Your task to perform on an android device: delete browsing data in the chrome app Image 0: 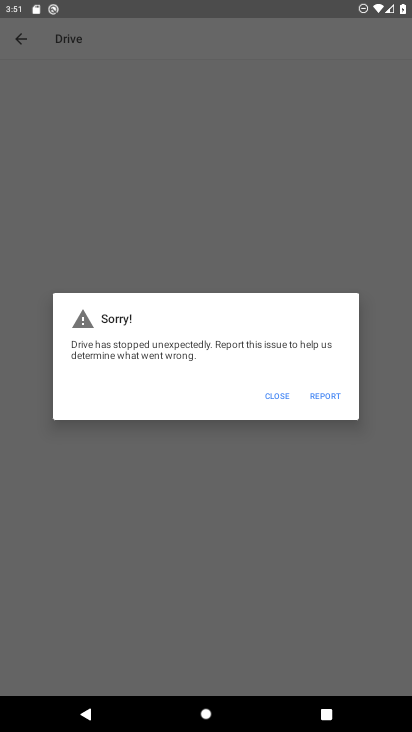
Step 0: press home button
Your task to perform on an android device: delete browsing data in the chrome app Image 1: 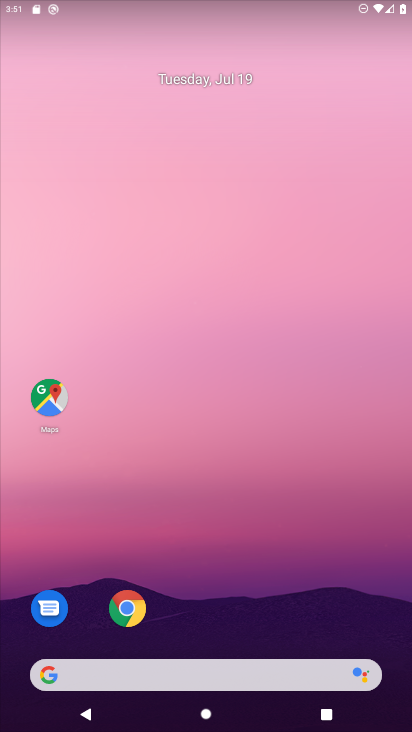
Step 1: drag from (238, 613) to (170, 138)
Your task to perform on an android device: delete browsing data in the chrome app Image 2: 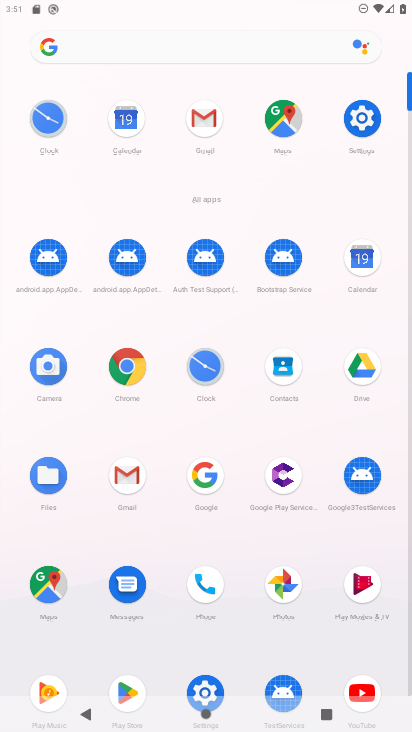
Step 2: click (128, 359)
Your task to perform on an android device: delete browsing data in the chrome app Image 3: 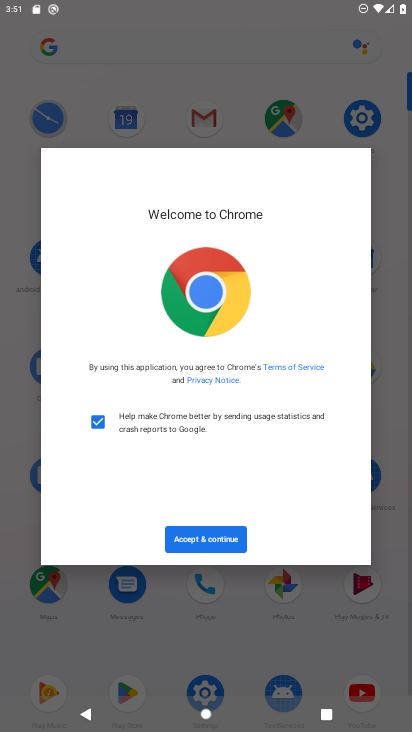
Step 3: click (185, 535)
Your task to perform on an android device: delete browsing data in the chrome app Image 4: 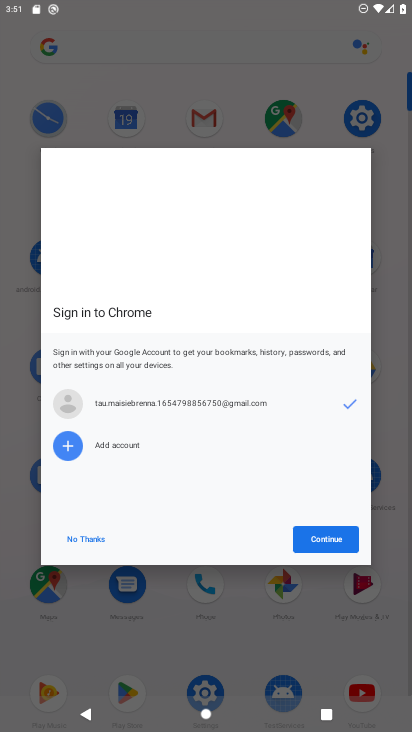
Step 4: click (340, 537)
Your task to perform on an android device: delete browsing data in the chrome app Image 5: 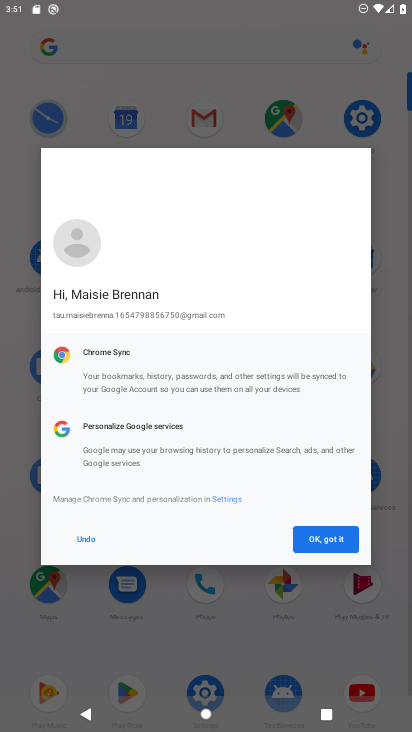
Step 5: click (340, 537)
Your task to perform on an android device: delete browsing data in the chrome app Image 6: 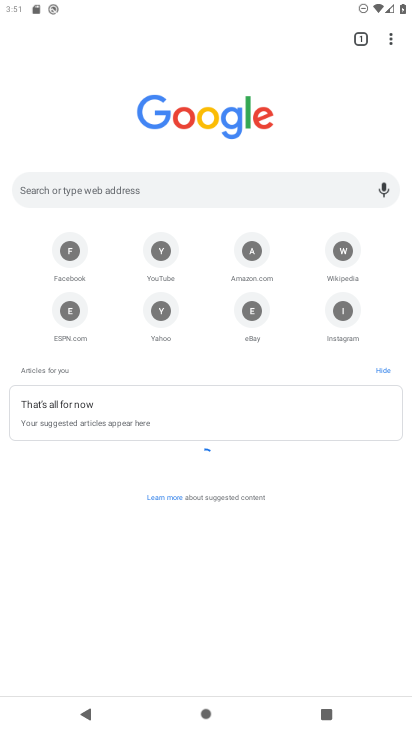
Step 6: drag from (394, 30) to (255, 221)
Your task to perform on an android device: delete browsing data in the chrome app Image 7: 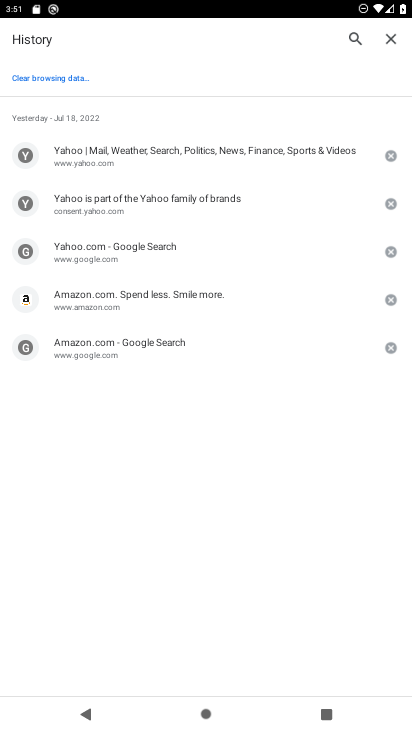
Step 7: click (76, 80)
Your task to perform on an android device: delete browsing data in the chrome app Image 8: 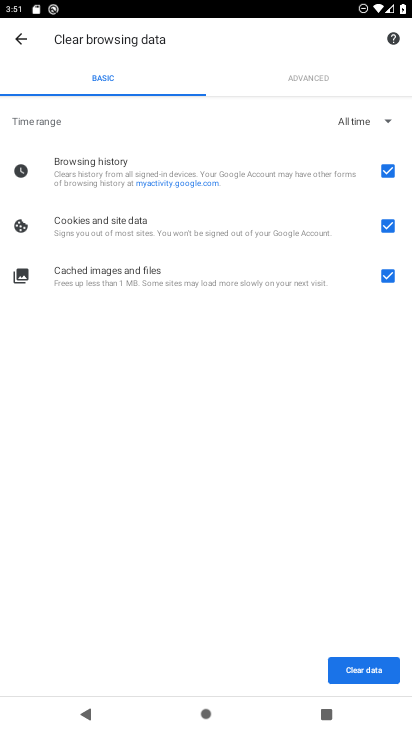
Step 8: click (390, 670)
Your task to perform on an android device: delete browsing data in the chrome app Image 9: 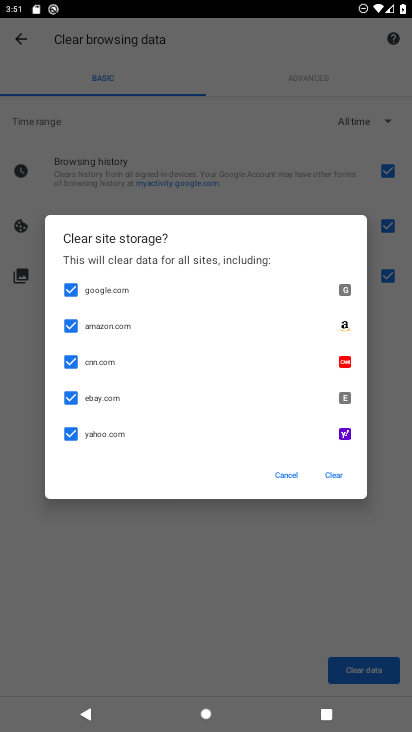
Step 9: click (341, 478)
Your task to perform on an android device: delete browsing data in the chrome app Image 10: 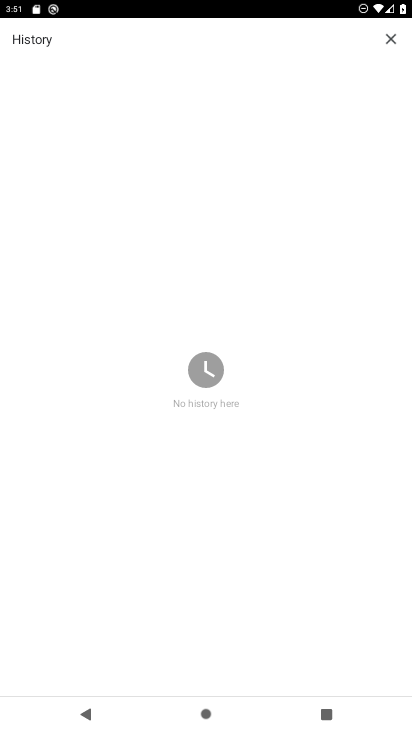
Step 10: task complete